Your task to perform on an android device: Add "energizer triple a" to the cart on walmart Image 0: 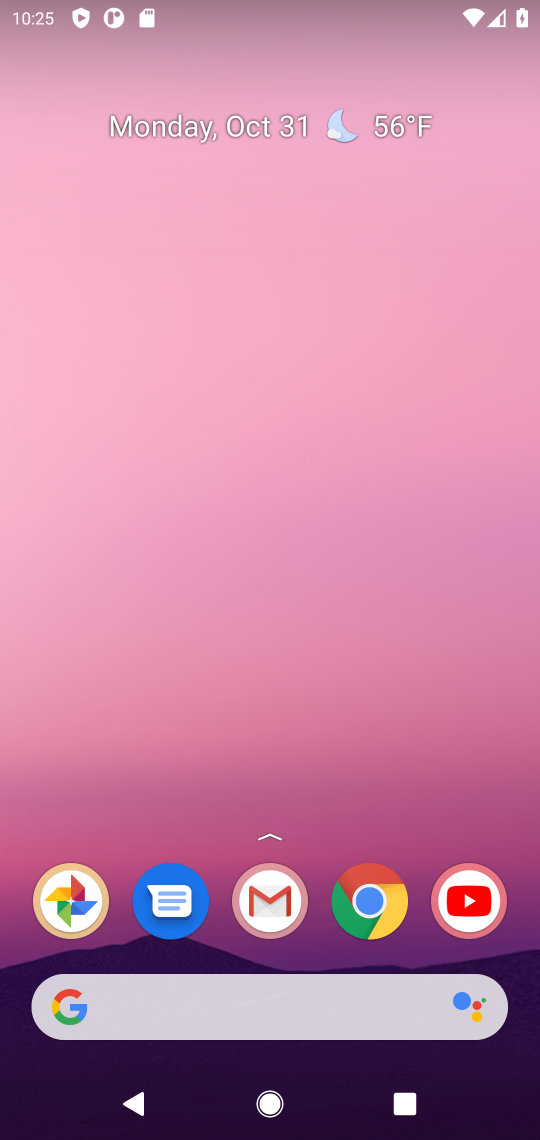
Step 0: drag from (353, 827) to (335, 215)
Your task to perform on an android device: Add "energizer triple a" to the cart on walmart Image 1: 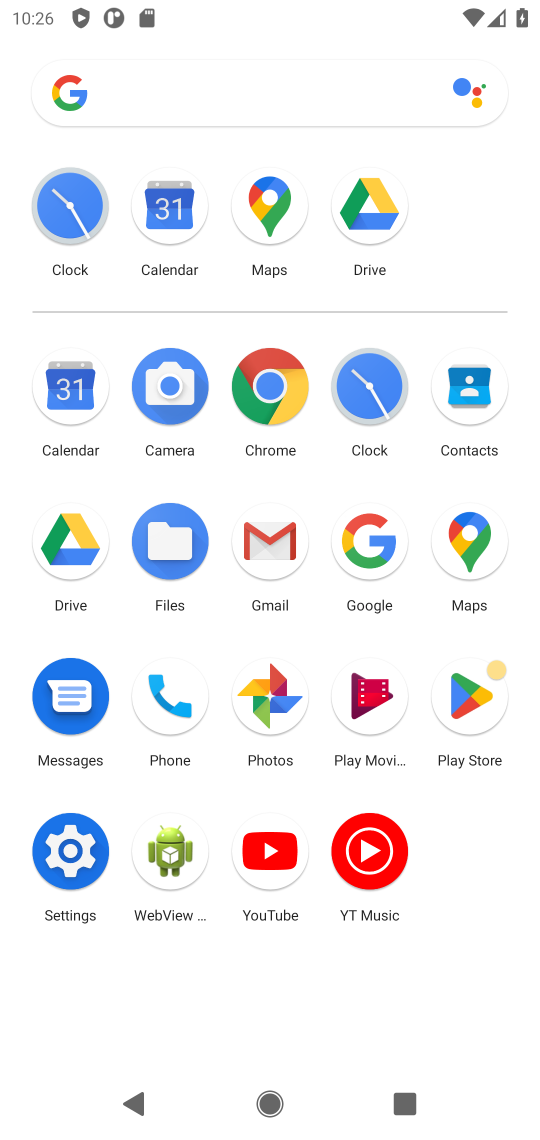
Step 1: click (382, 533)
Your task to perform on an android device: Add "energizer triple a" to the cart on walmart Image 2: 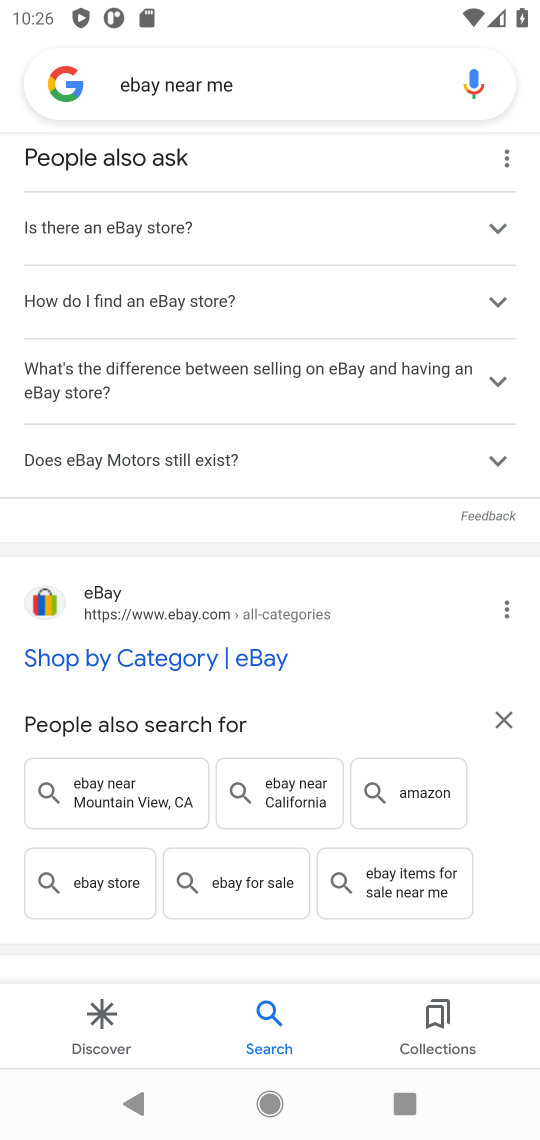
Step 2: click (238, 80)
Your task to perform on an android device: Add "energizer triple a" to the cart on walmart Image 3: 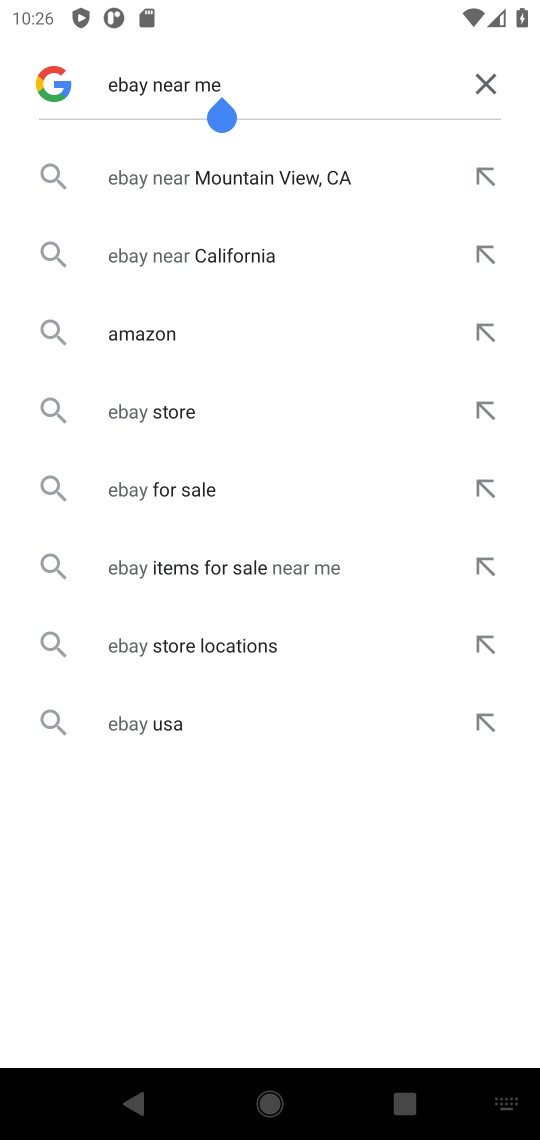
Step 3: click (478, 89)
Your task to perform on an android device: Add "energizer triple a" to the cart on walmart Image 4: 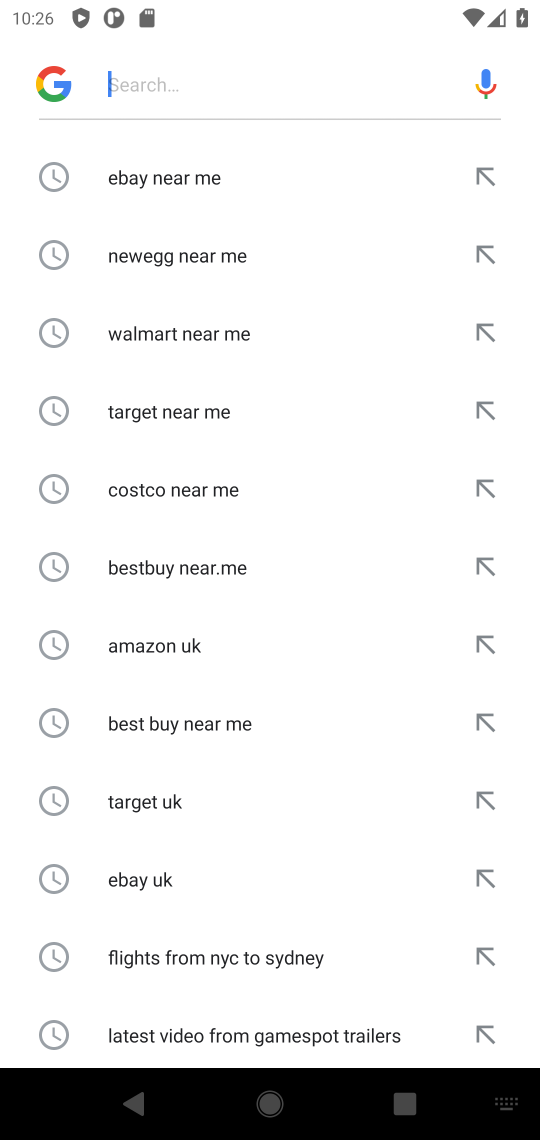
Step 4: click (169, 67)
Your task to perform on an android device: Add "energizer triple a" to the cart on walmart Image 5: 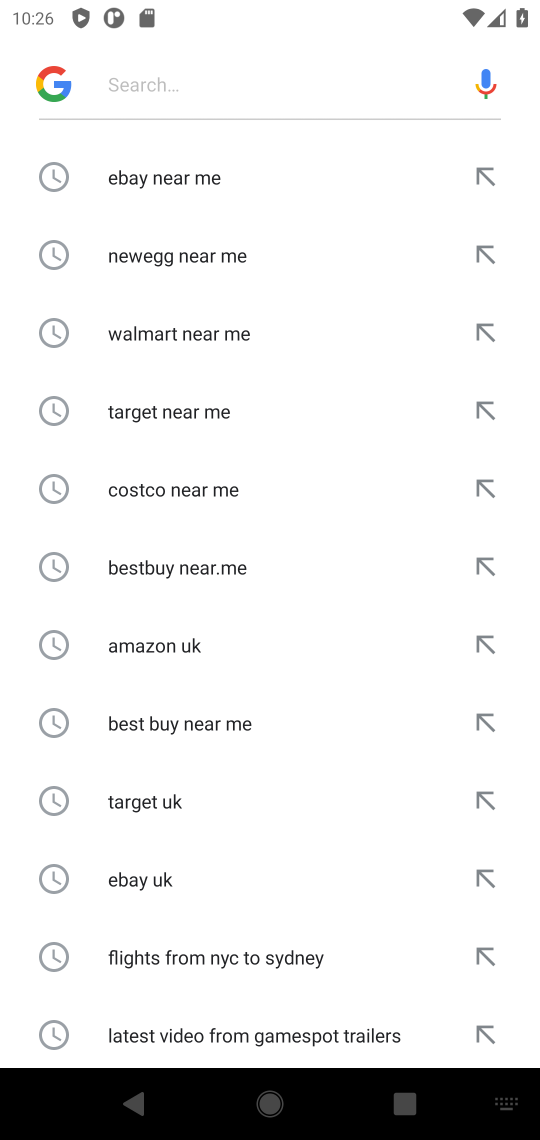
Step 5: type "walmart "
Your task to perform on an android device: Add "energizer triple a" to the cart on walmart Image 6: 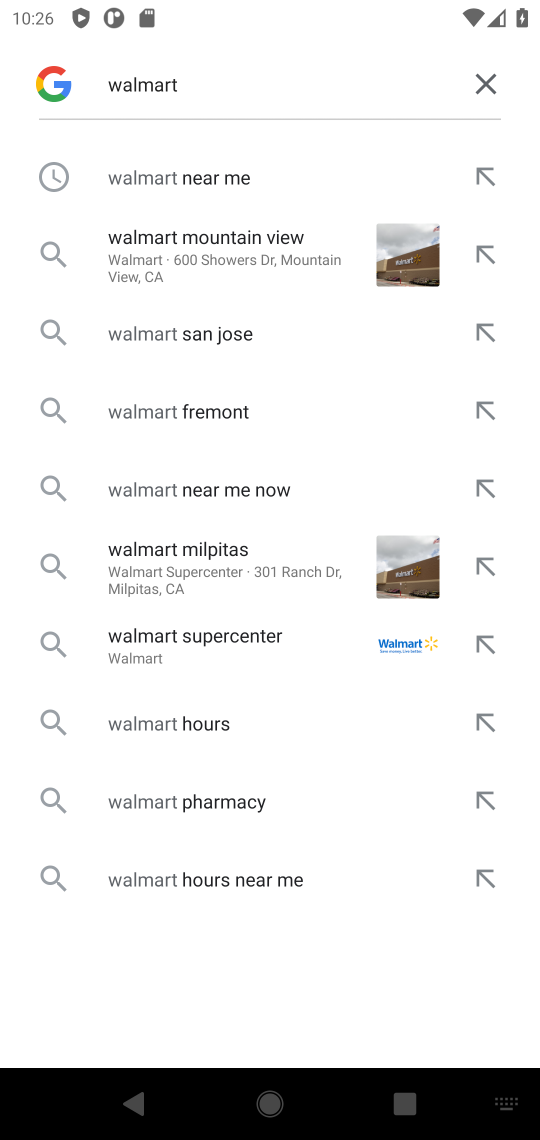
Step 6: click (182, 182)
Your task to perform on an android device: Add "energizer triple a" to the cart on walmart Image 7: 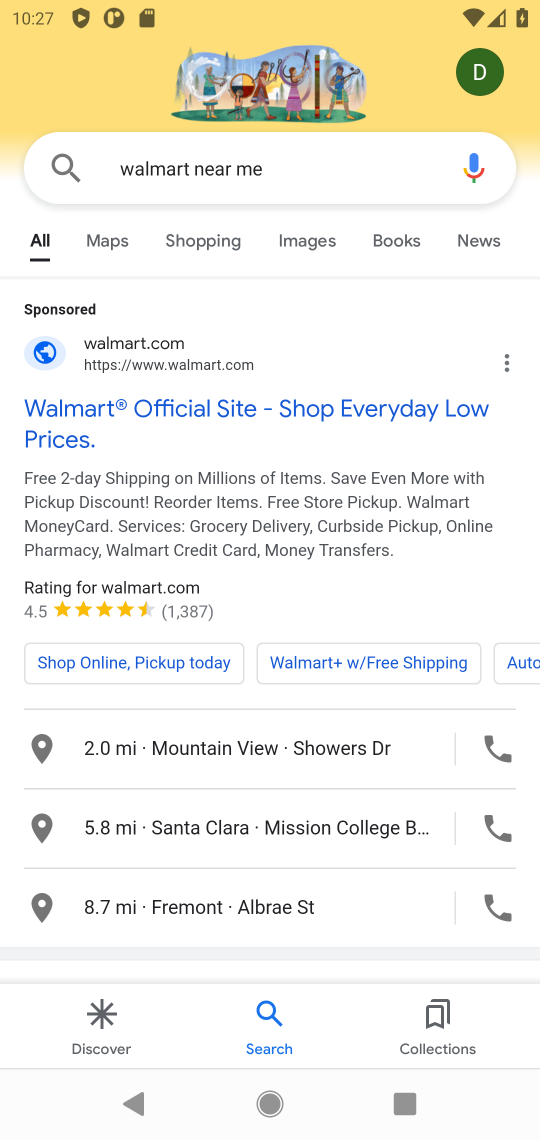
Step 7: drag from (256, 893) to (315, 293)
Your task to perform on an android device: Add "energizer triple a" to the cart on walmart Image 8: 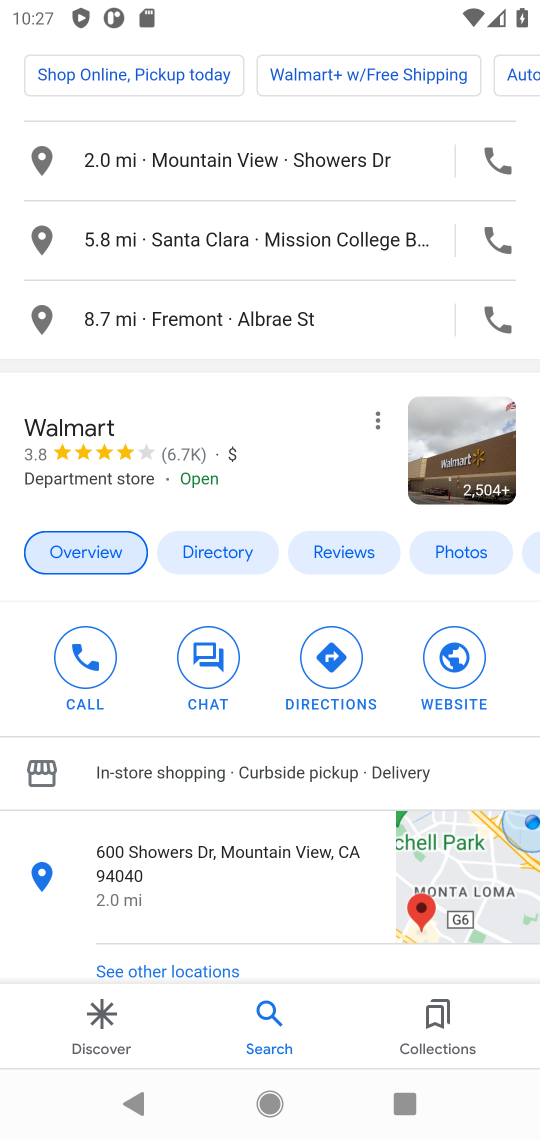
Step 8: drag from (140, 789) to (225, 256)
Your task to perform on an android device: Add "energizer triple a" to the cart on walmart Image 9: 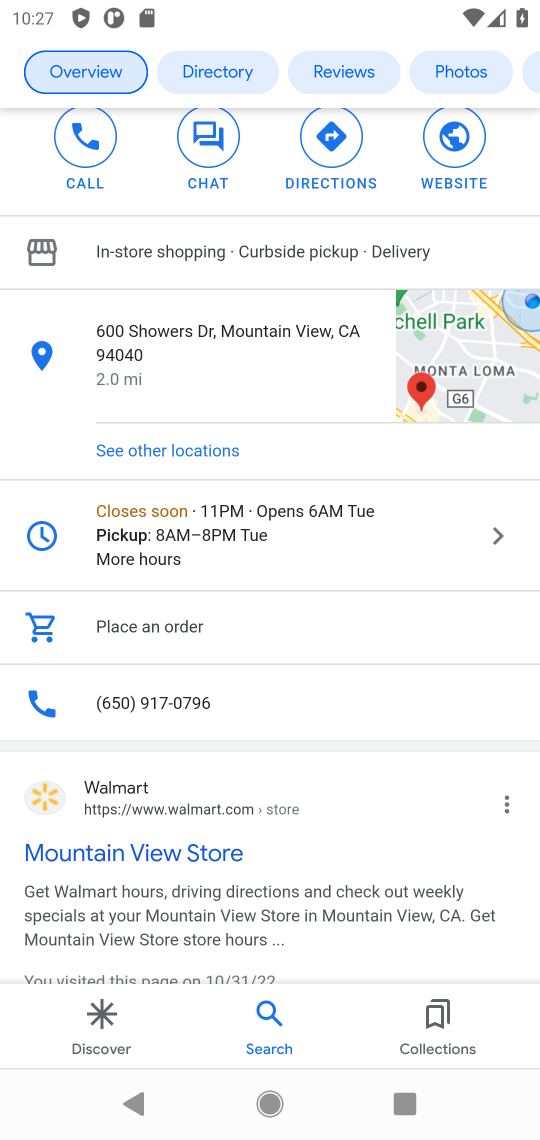
Step 9: click (44, 794)
Your task to perform on an android device: Add "energizer triple a" to the cart on walmart Image 10: 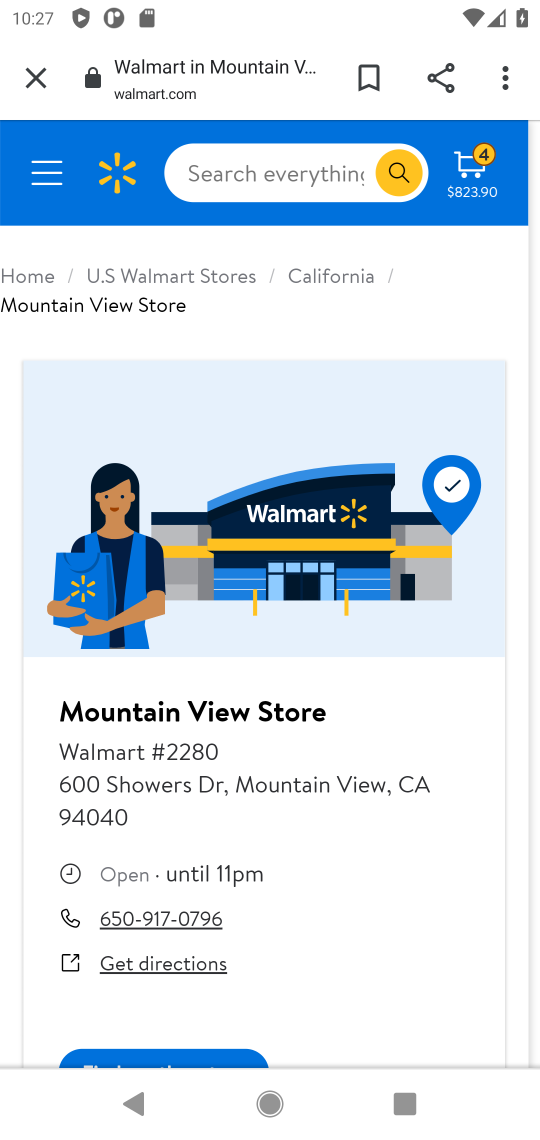
Step 10: click (280, 174)
Your task to perform on an android device: Add "energizer triple a" to the cart on walmart Image 11: 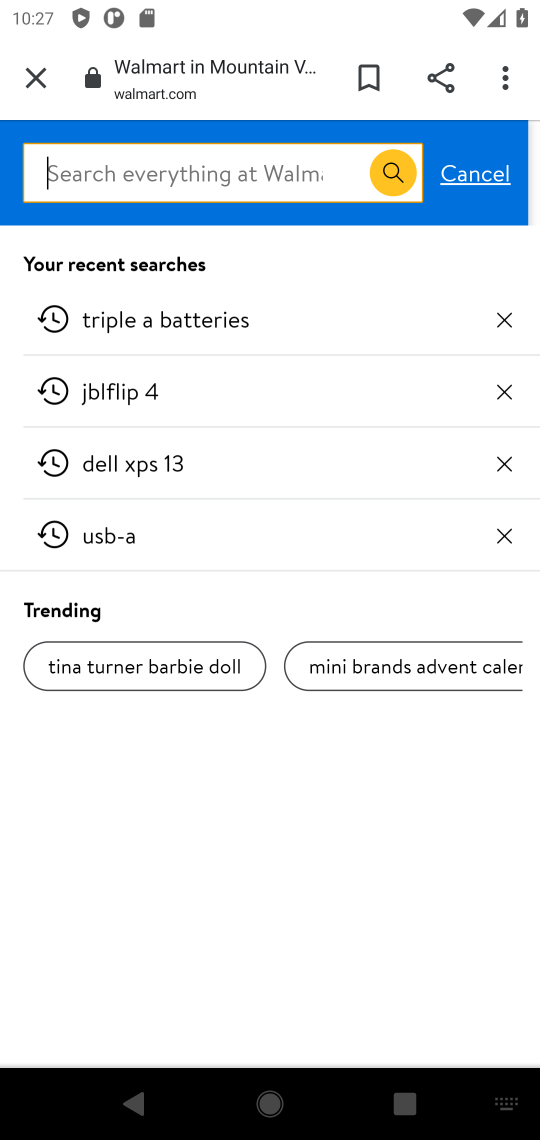
Step 11: click (201, 170)
Your task to perform on an android device: Add "energizer triple a" to the cart on walmart Image 12: 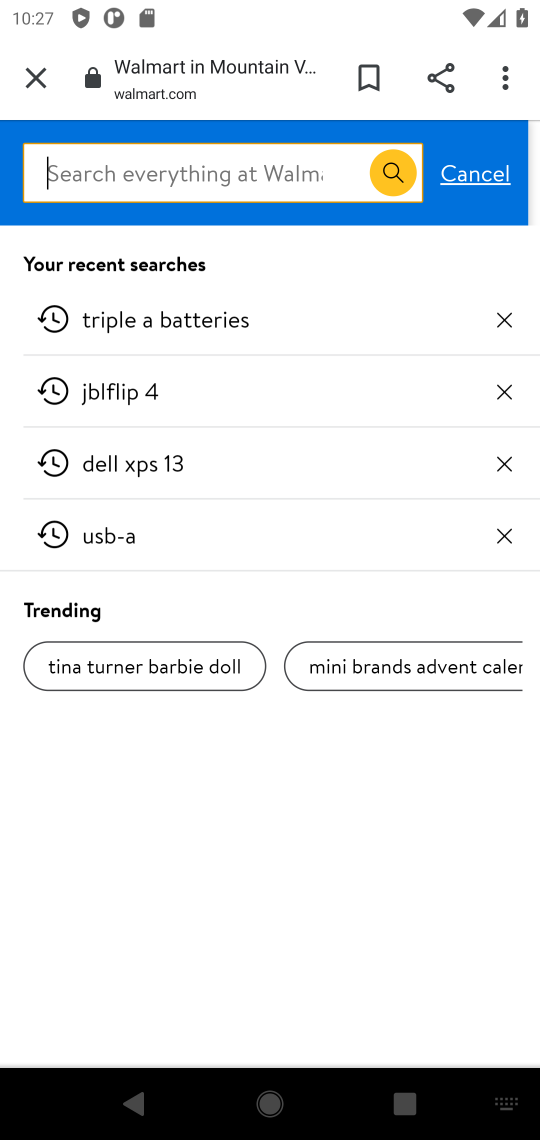
Step 12: type "energizer triple "
Your task to perform on an android device: Add "energizer triple a" to the cart on walmart Image 13: 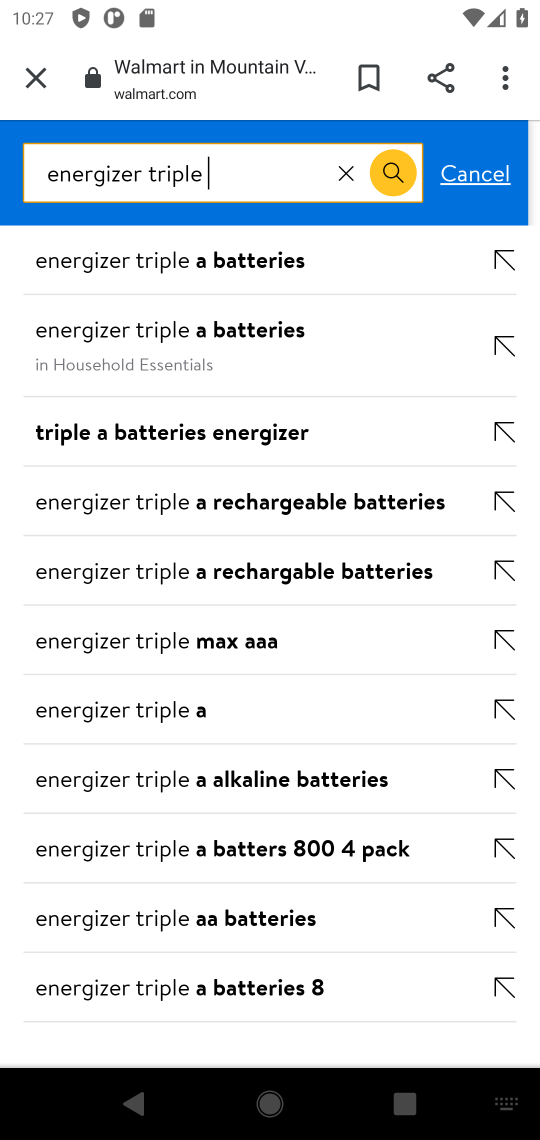
Step 13: click (200, 255)
Your task to perform on an android device: Add "energizer triple a" to the cart on walmart Image 14: 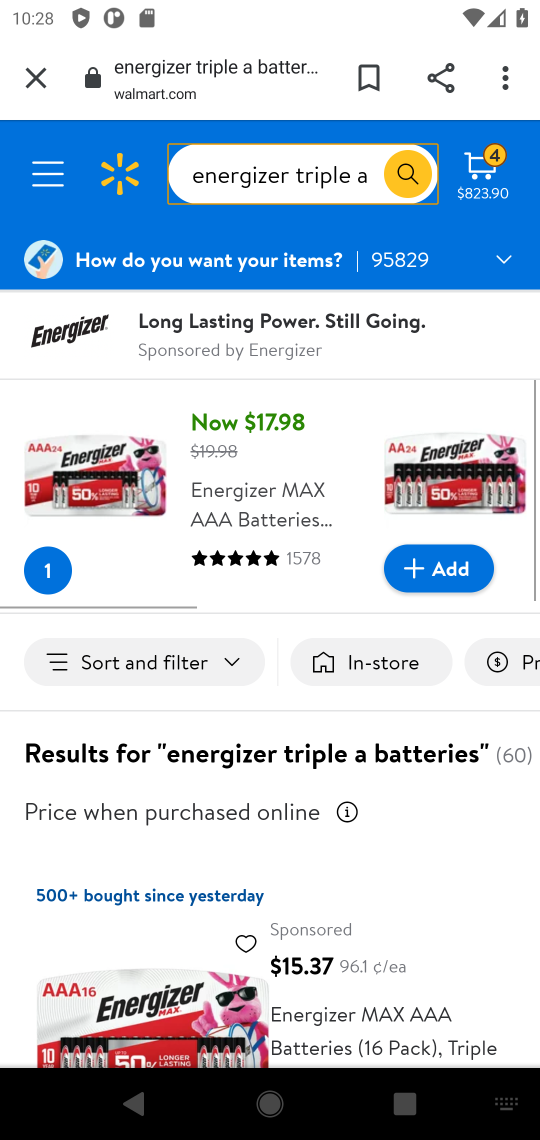
Step 14: task complete